Your task to perform on an android device: turn on priority inbox in the gmail app Image 0: 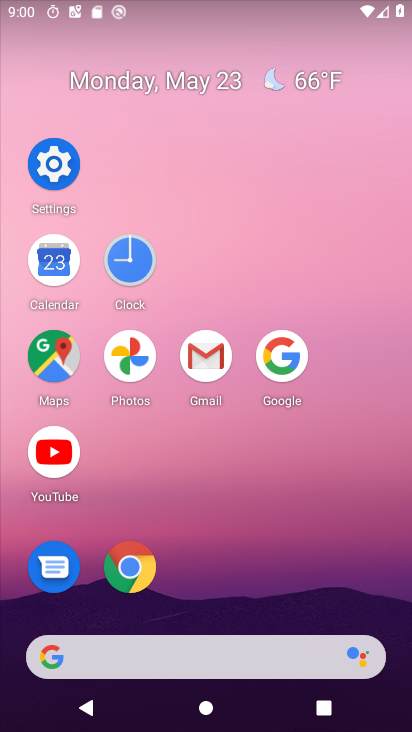
Step 0: click (203, 337)
Your task to perform on an android device: turn on priority inbox in the gmail app Image 1: 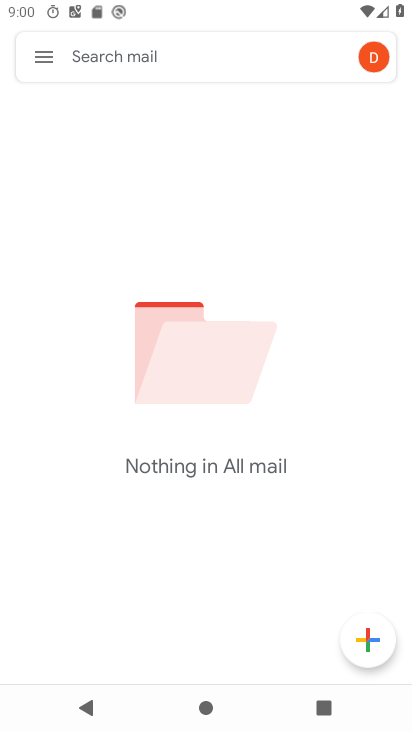
Step 1: click (53, 57)
Your task to perform on an android device: turn on priority inbox in the gmail app Image 2: 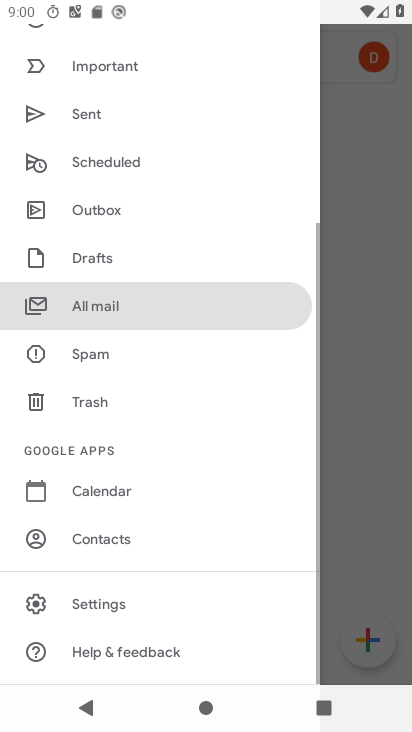
Step 2: drag from (249, 512) to (230, 157)
Your task to perform on an android device: turn on priority inbox in the gmail app Image 3: 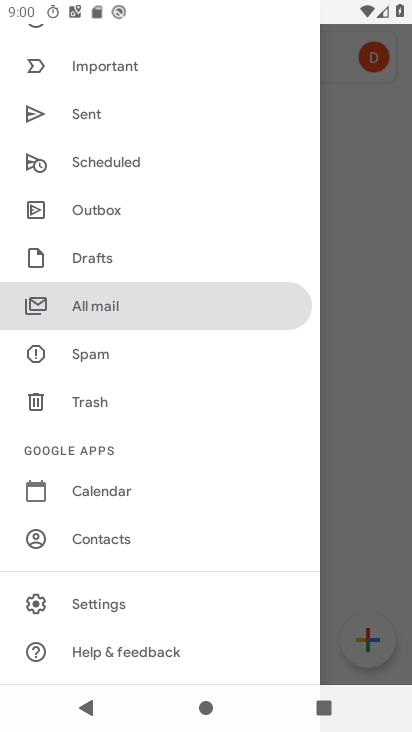
Step 3: click (179, 604)
Your task to perform on an android device: turn on priority inbox in the gmail app Image 4: 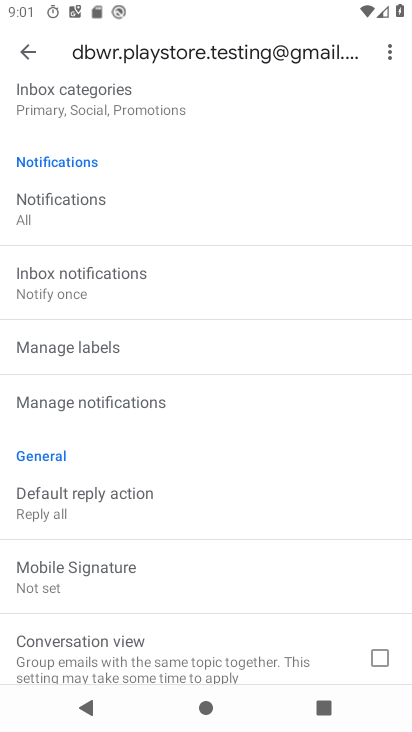
Step 4: drag from (222, 182) to (236, 375)
Your task to perform on an android device: turn on priority inbox in the gmail app Image 5: 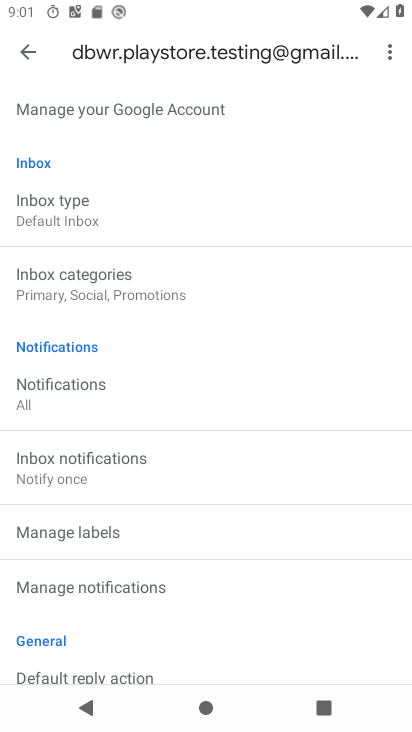
Step 5: click (113, 217)
Your task to perform on an android device: turn on priority inbox in the gmail app Image 6: 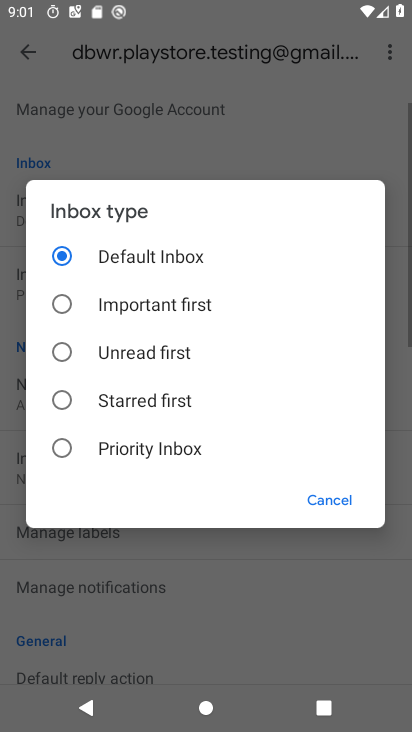
Step 6: click (153, 446)
Your task to perform on an android device: turn on priority inbox in the gmail app Image 7: 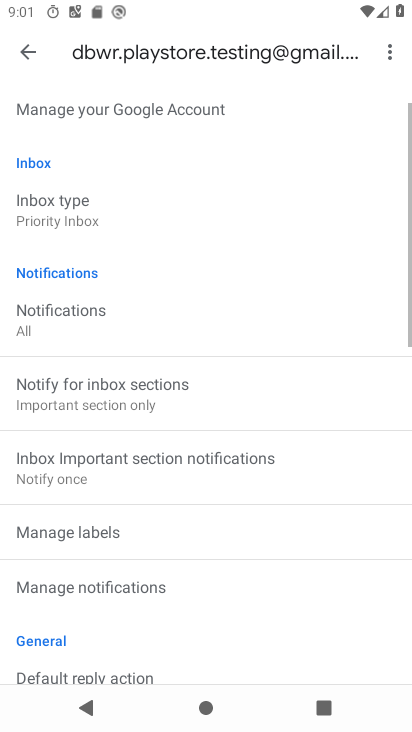
Step 7: task complete